Your task to perform on an android device: turn off sleep mode Image 0: 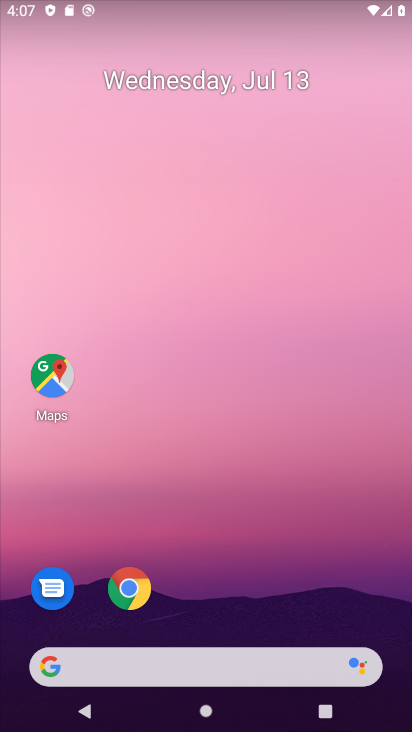
Step 0: drag from (32, 696) to (362, 0)
Your task to perform on an android device: turn off sleep mode Image 1: 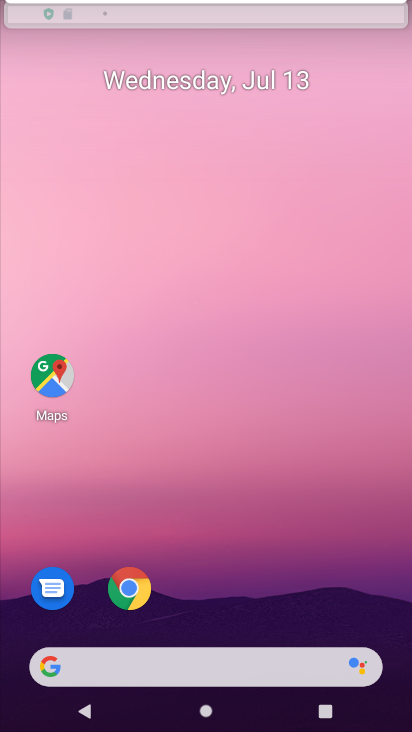
Step 1: click (201, 277)
Your task to perform on an android device: turn off sleep mode Image 2: 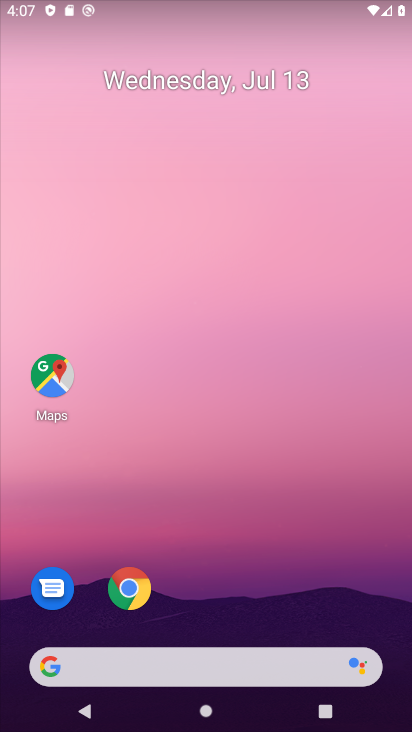
Step 2: task complete